Your task to perform on an android device: check out phone information Image 0: 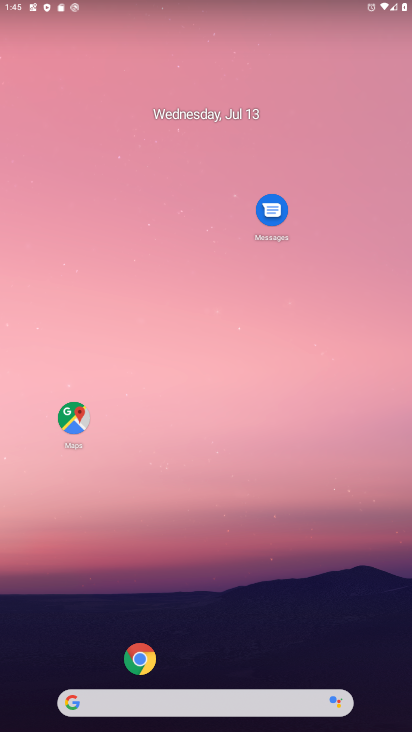
Step 0: drag from (190, 341) to (307, 39)
Your task to perform on an android device: check out phone information Image 1: 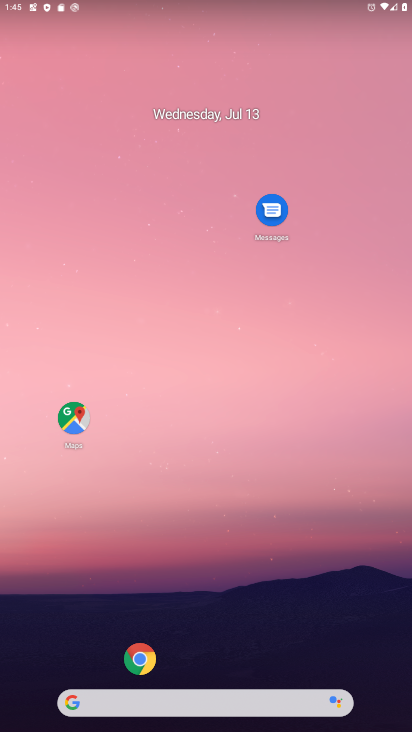
Step 1: drag from (12, 697) to (221, 154)
Your task to perform on an android device: check out phone information Image 2: 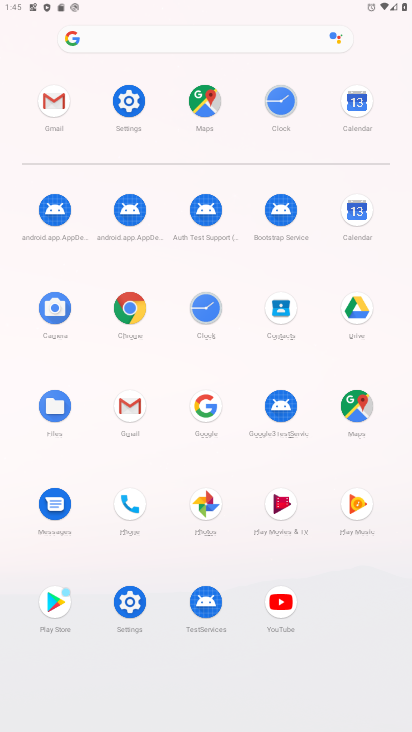
Step 2: click (124, 510)
Your task to perform on an android device: check out phone information Image 3: 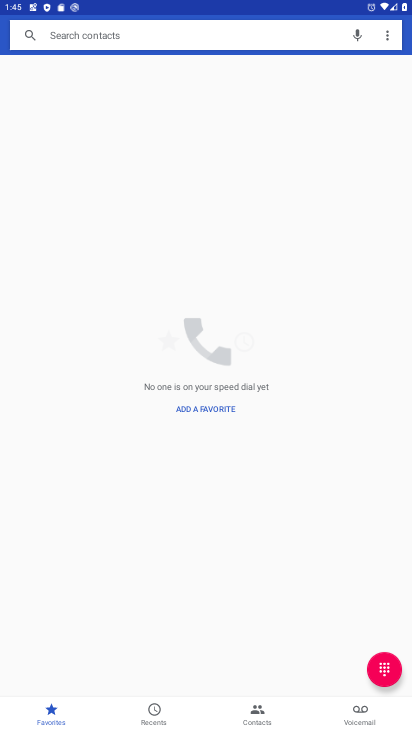
Step 3: click (264, 715)
Your task to perform on an android device: check out phone information Image 4: 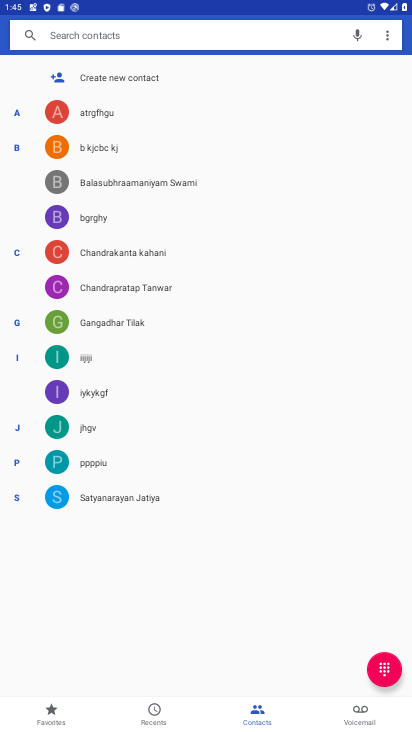
Step 4: task complete